Your task to perform on an android device: open the mobile data screen to see how much data has been used Image 0: 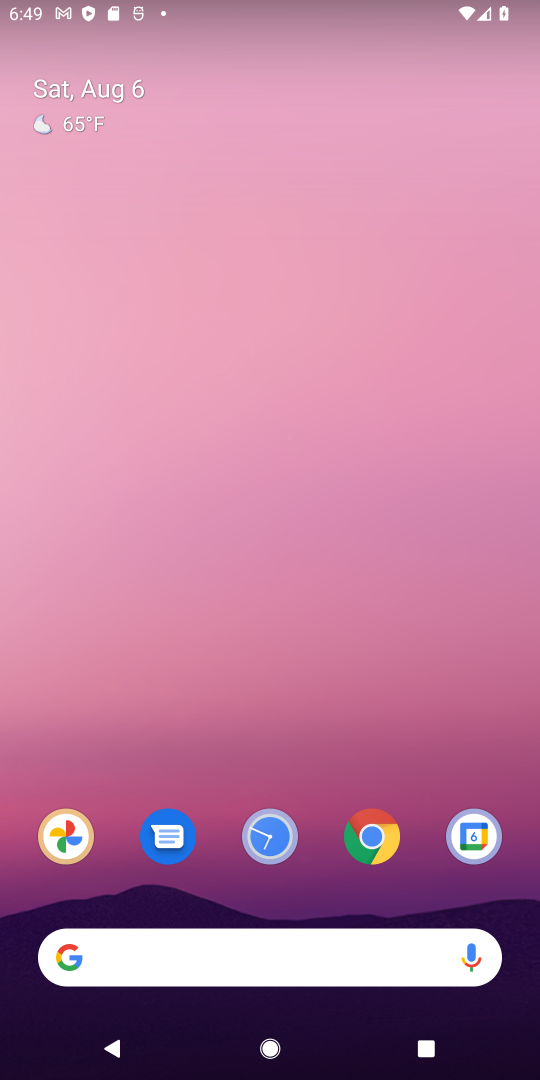
Step 0: drag from (456, 920) to (324, 77)
Your task to perform on an android device: open the mobile data screen to see how much data has been used Image 1: 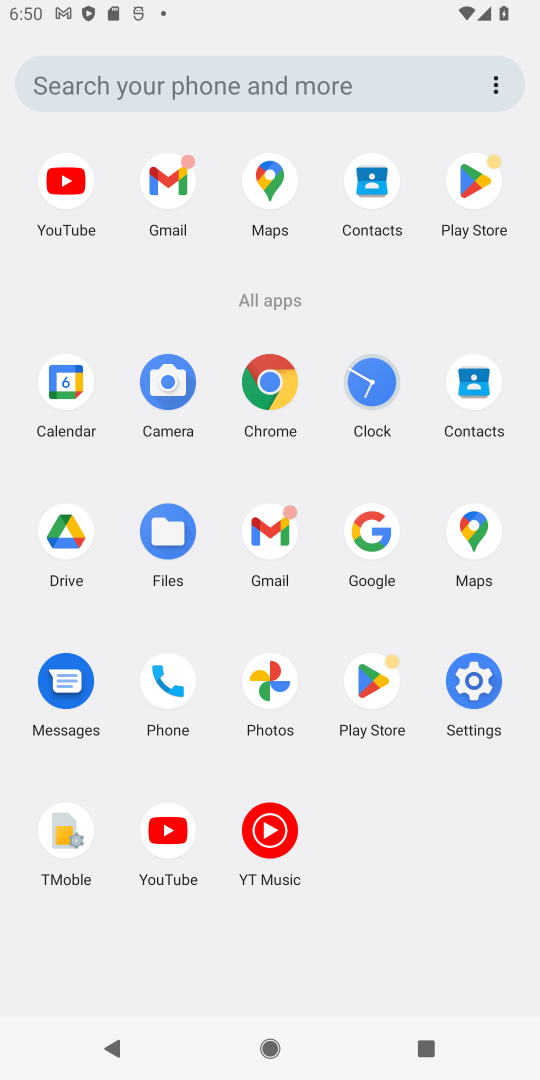
Step 1: click (444, 706)
Your task to perform on an android device: open the mobile data screen to see how much data has been used Image 2: 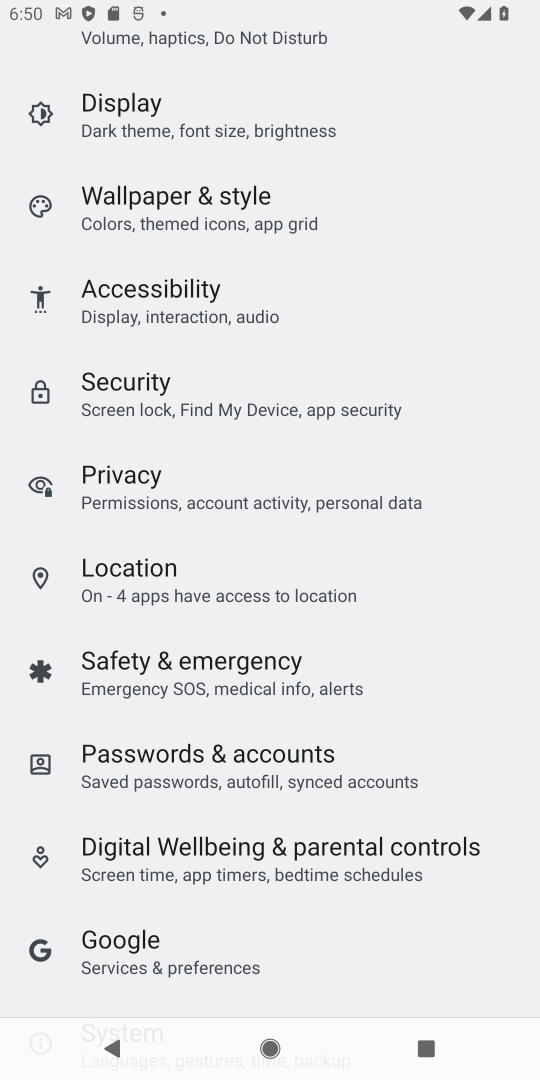
Step 2: drag from (218, 151) to (231, 1063)
Your task to perform on an android device: open the mobile data screen to see how much data has been used Image 3: 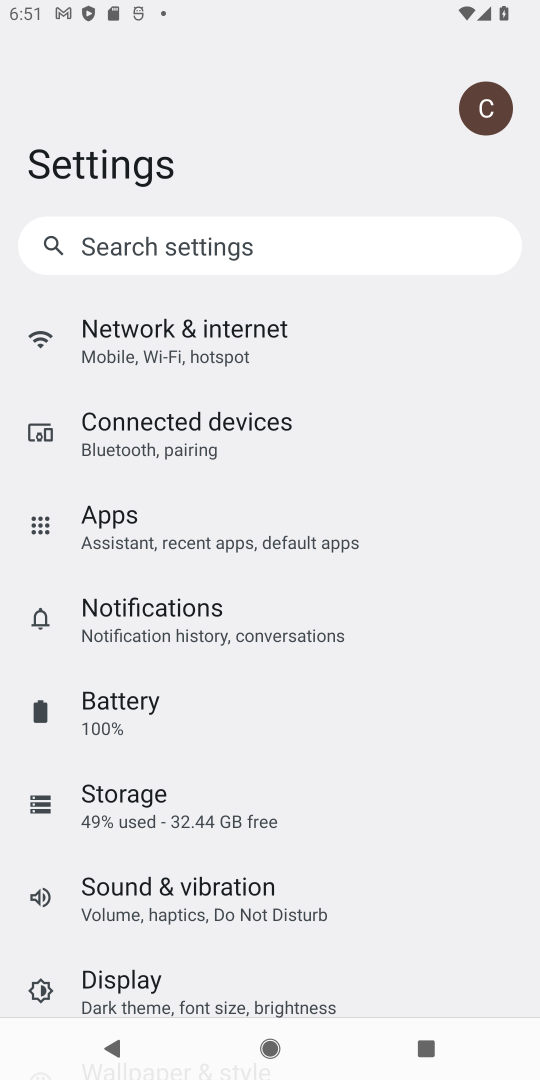
Step 3: click (206, 358)
Your task to perform on an android device: open the mobile data screen to see how much data has been used Image 4: 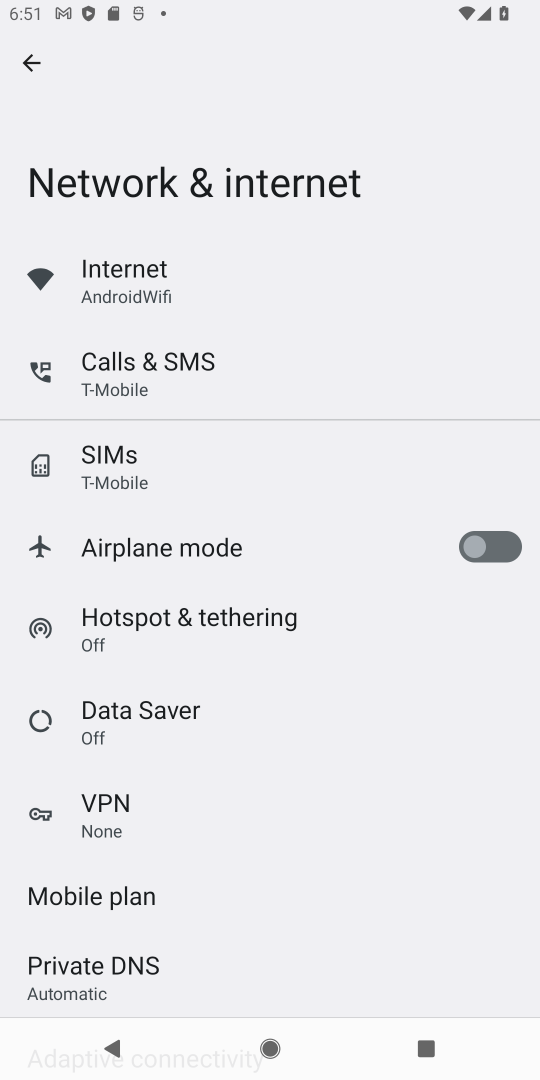
Step 4: task complete